Your task to perform on an android device: Go to wifi settings Image 0: 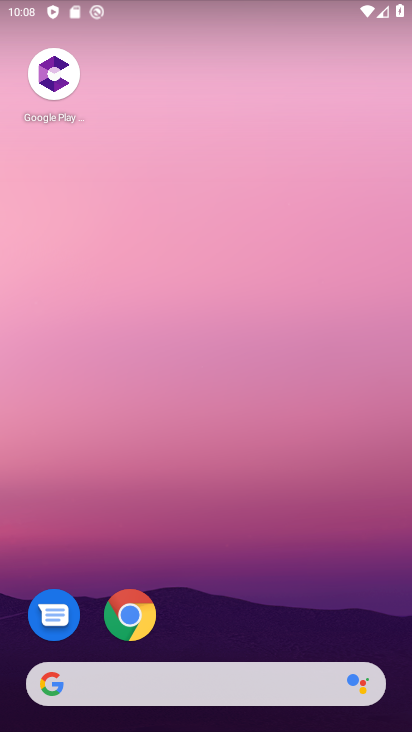
Step 0: press home button
Your task to perform on an android device: Go to wifi settings Image 1: 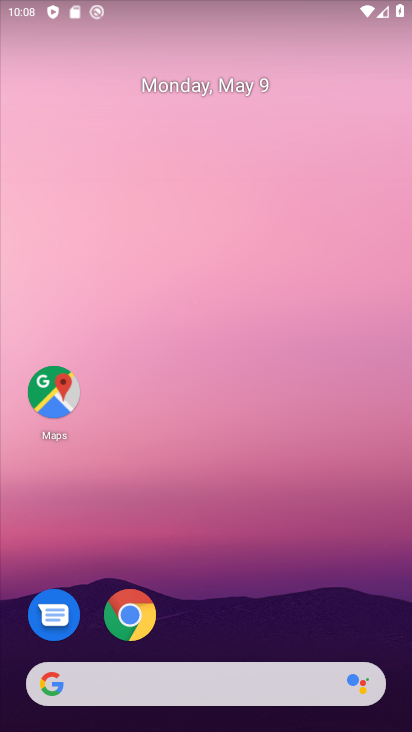
Step 1: drag from (203, 623) to (260, 150)
Your task to perform on an android device: Go to wifi settings Image 2: 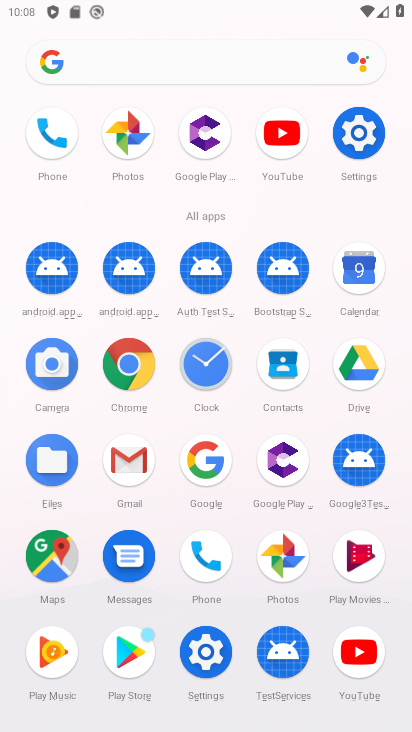
Step 2: click (201, 657)
Your task to perform on an android device: Go to wifi settings Image 3: 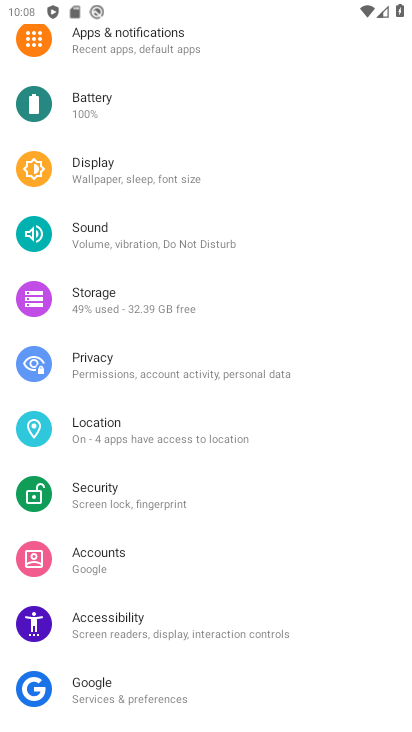
Step 3: drag from (160, 141) to (176, 471)
Your task to perform on an android device: Go to wifi settings Image 4: 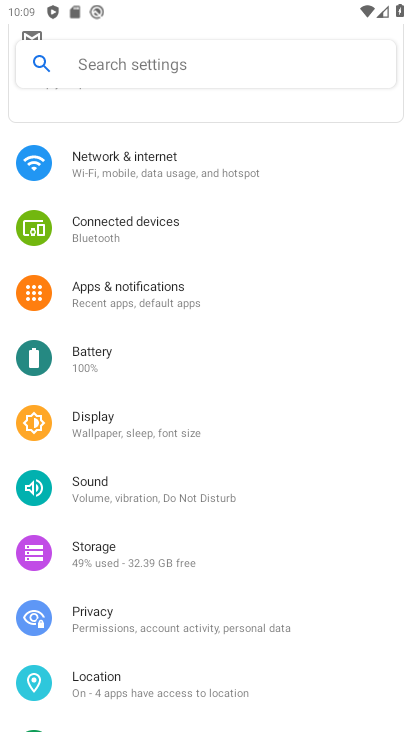
Step 4: click (195, 166)
Your task to perform on an android device: Go to wifi settings Image 5: 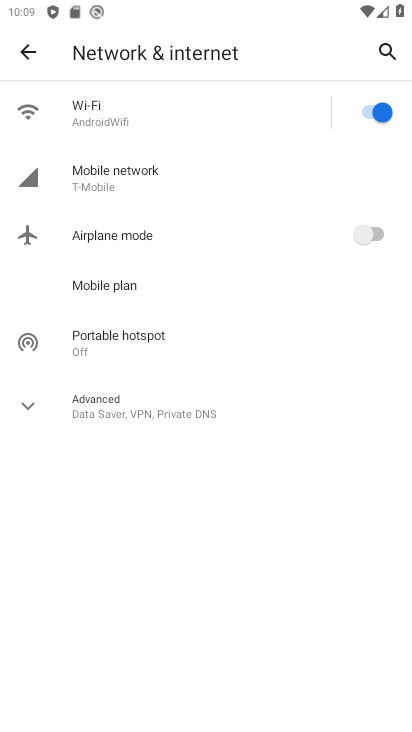
Step 5: task complete